Your task to perform on an android device: Do I have any events today? Image 0: 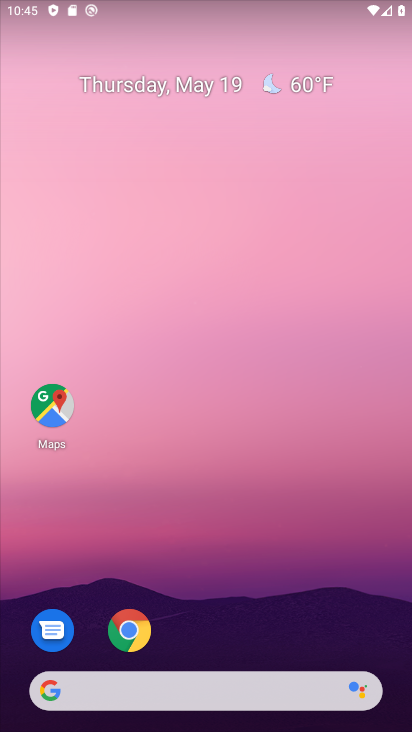
Step 0: drag from (258, 612) to (205, 81)
Your task to perform on an android device: Do I have any events today? Image 1: 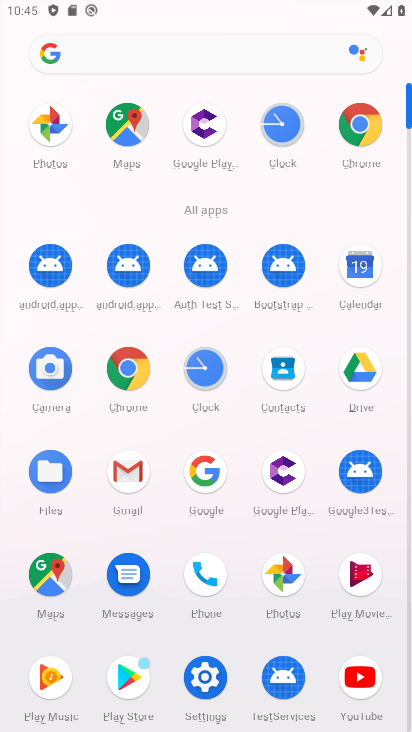
Step 1: click (367, 261)
Your task to perform on an android device: Do I have any events today? Image 2: 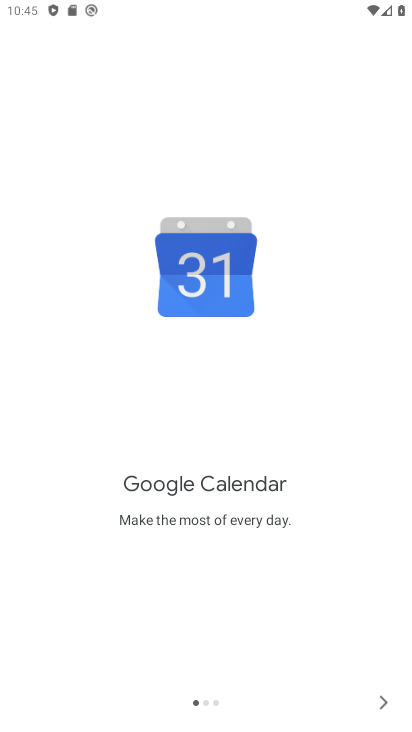
Step 2: click (381, 702)
Your task to perform on an android device: Do I have any events today? Image 3: 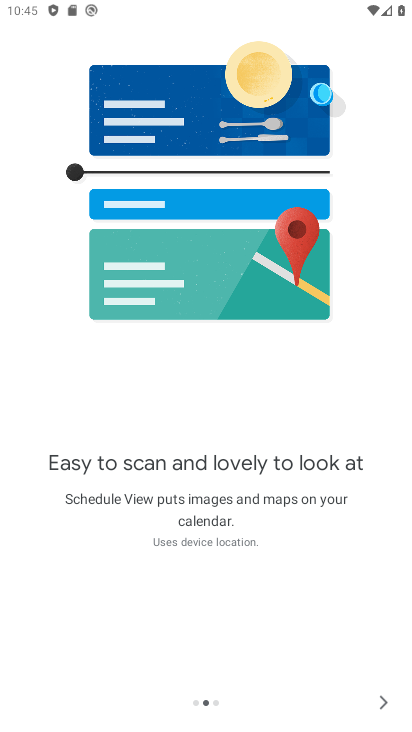
Step 3: click (381, 702)
Your task to perform on an android device: Do I have any events today? Image 4: 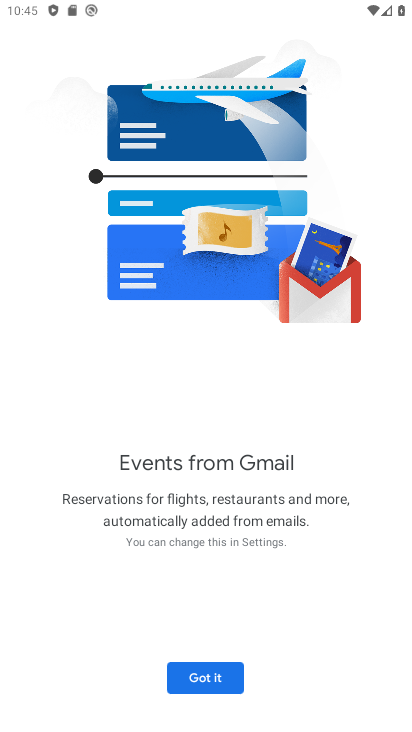
Step 4: click (235, 681)
Your task to perform on an android device: Do I have any events today? Image 5: 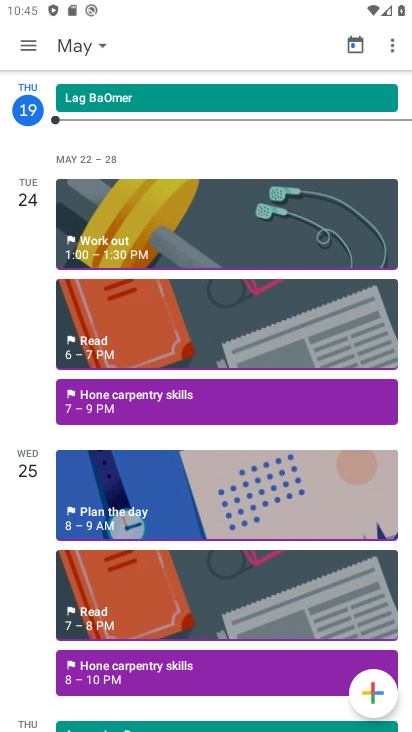
Step 5: click (21, 42)
Your task to perform on an android device: Do I have any events today? Image 6: 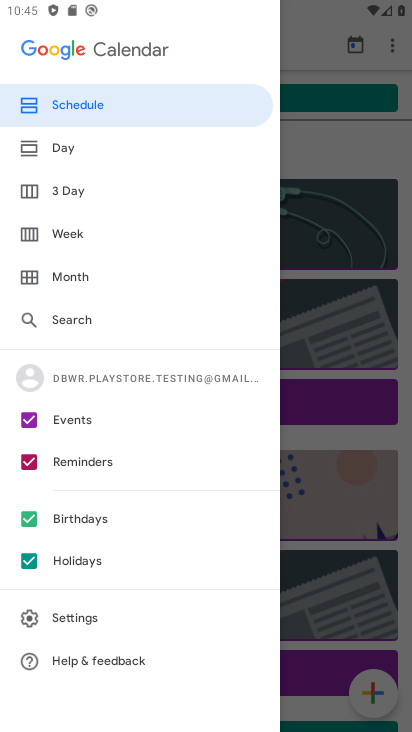
Step 6: click (55, 143)
Your task to perform on an android device: Do I have any events today? Image 7: 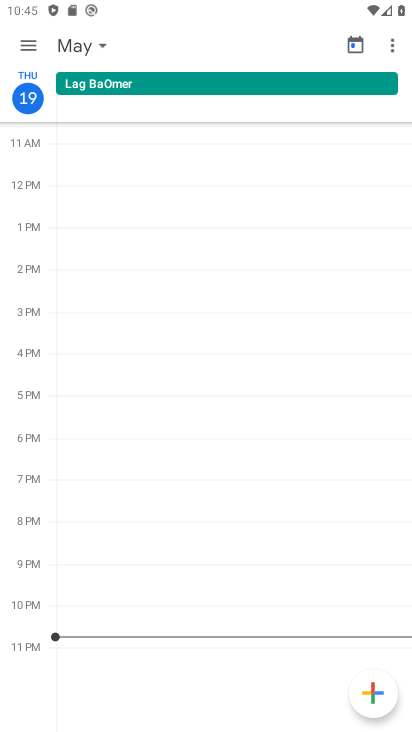
Step 7: click (102, 41)
Your task to perform on an android device: Do I have any events today? Image 8: 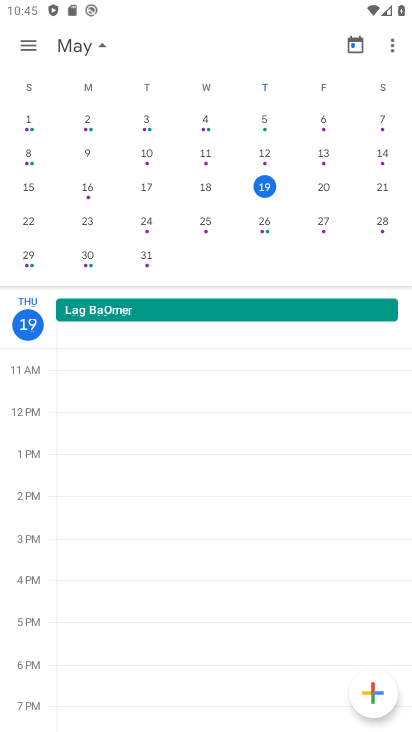
Step 8: click (322, 191)
Your task to perform on an android device: Do I have any events today? Image 9: 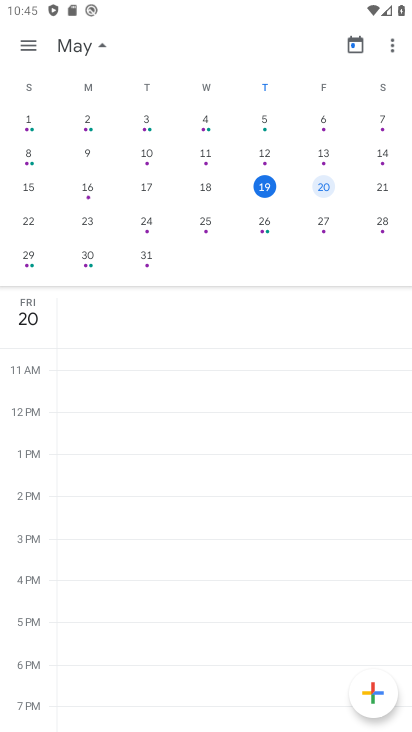
Step 9: task complete